Your task to perform on an android device: change keyboard looks Image 0: 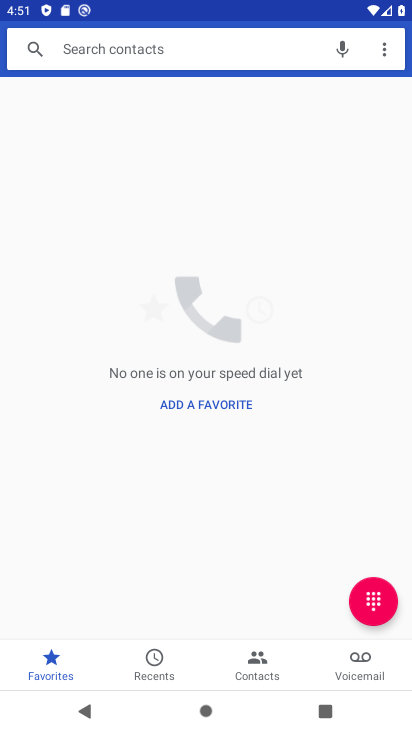
Step 0: press home button
Your task to perform on an android device: change keyboard looks Image 1: 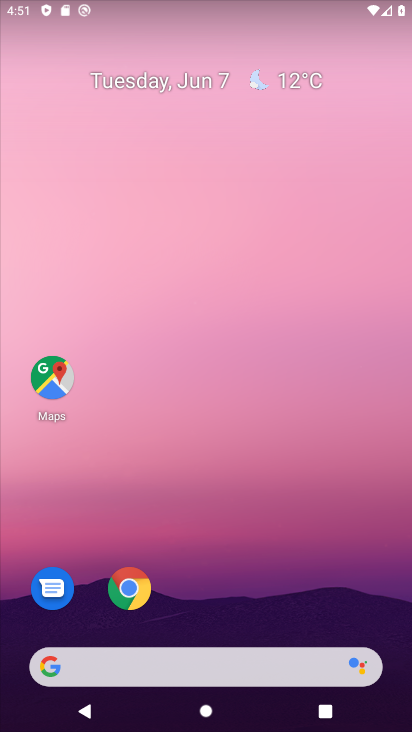
Step 1: drag from (194, 634) to (208, 116)
Your task to perform on an android device: change keyboard looks Image 2: 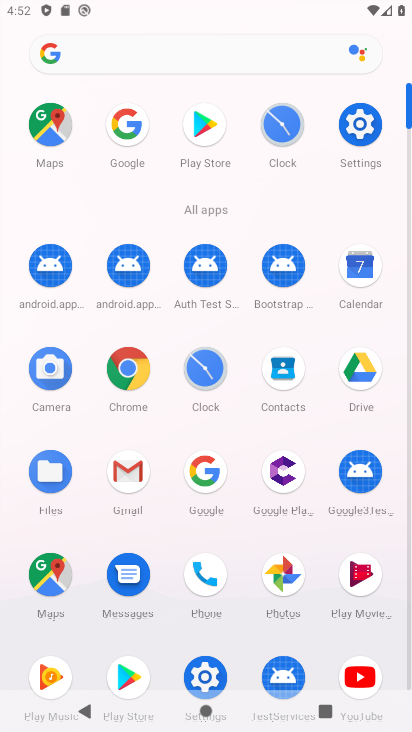
Step 2: click (208, 665)
Your task to perform on an android device: change keyboard looks Image 3: 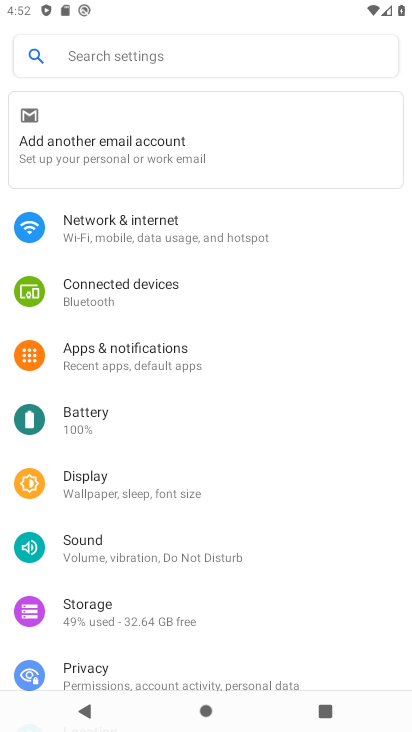
Step 3: drag from (145, 622) to (232, 100)
Your task to perform on an android device: change keyboard looks Image 4: 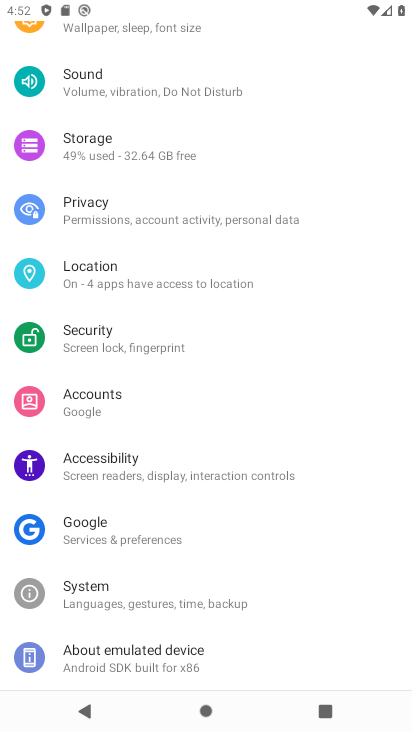
Step 4: click (100, 604)
Your task to perform on an android device: change keyboard looks Image 5: 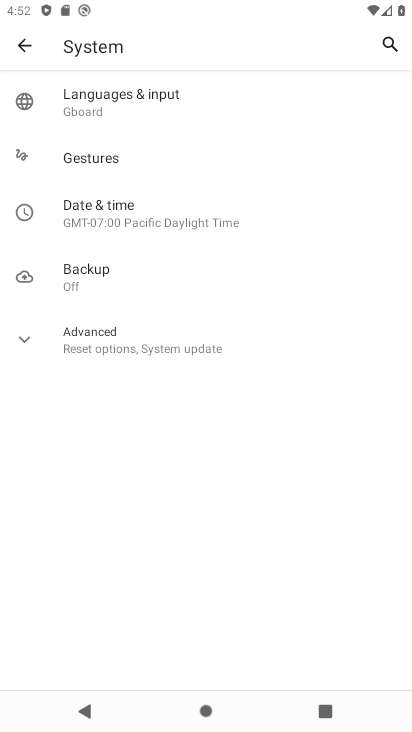
Step 5: click (99, 110)
Your task to perform on an android device: change keyboard looks Image 6: 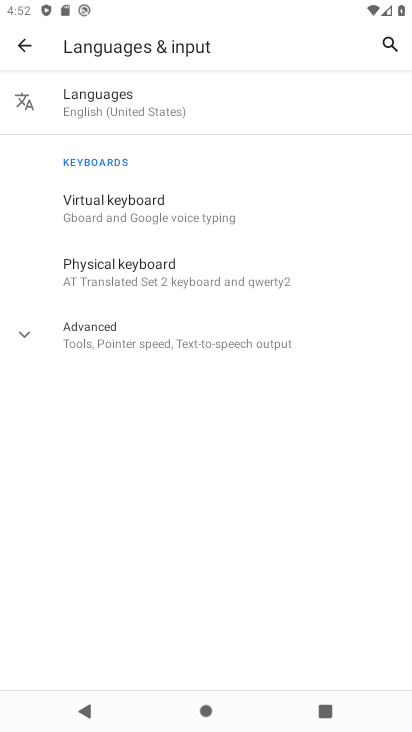
Step 6: click (170, 218)
Your task to perform on an android device: change keyboard looks Image 7: 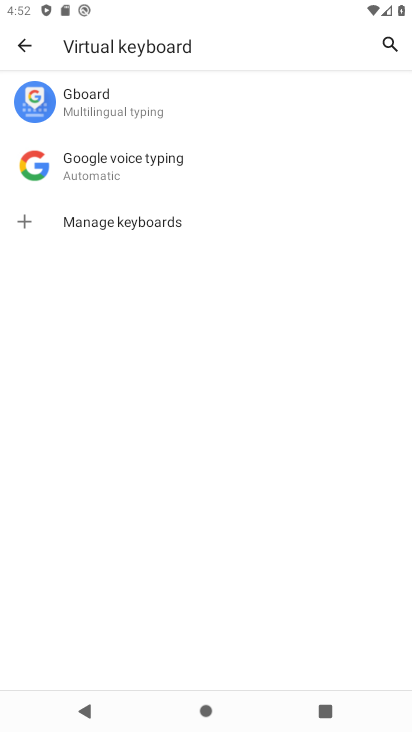
Step 7: click (91, 106)
Your task to perform on an android device: change keyboard looks Image 8: 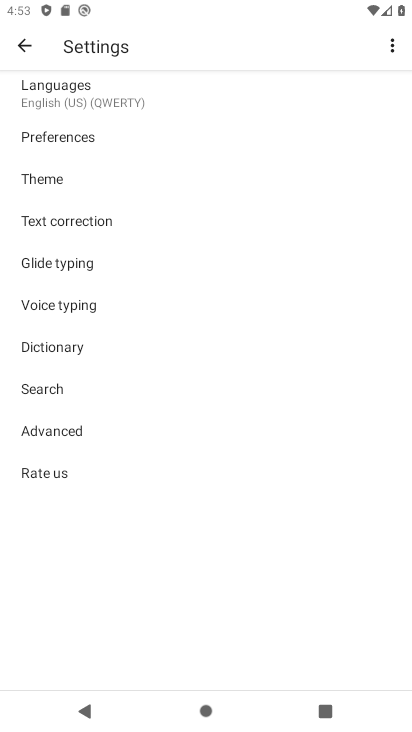
Step 8: click (46, 184)
Your task to perform on an android device: change keyboard looks Image 9: 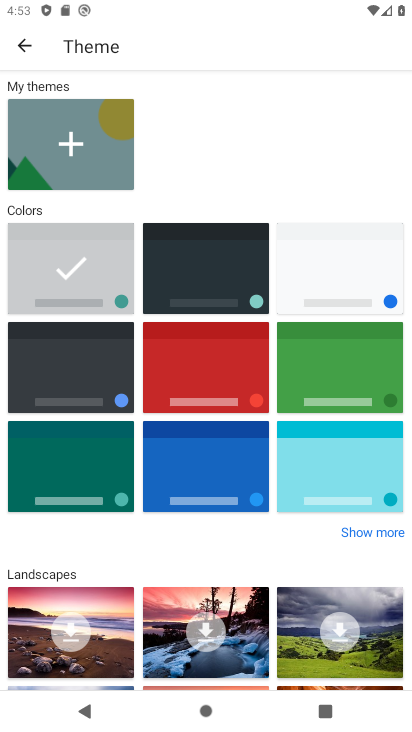
Step 9: click (224, 289)
Your task to perform on an android device: change keyboard looks Image 10: 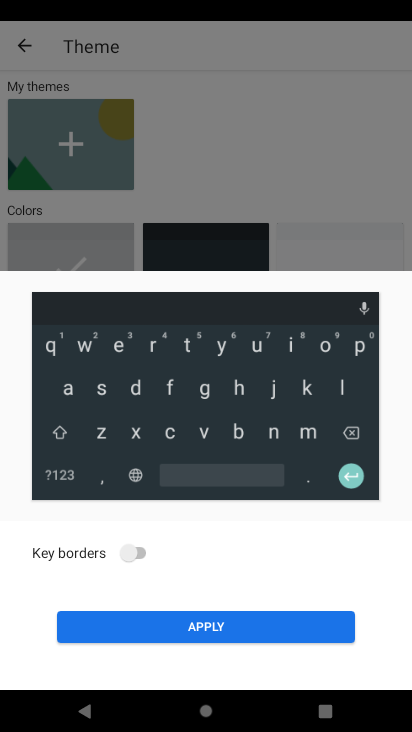
Step 10: click (192, 632)
Your task to perform on an android device: change keyboard looks Image 11: 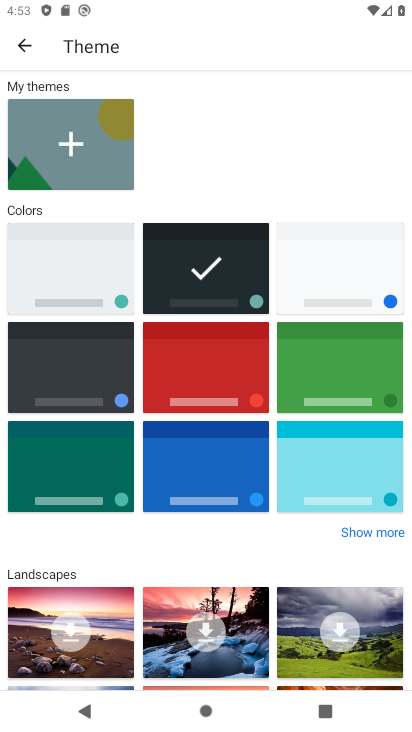
Step 11: task complete